Your task to perform on an android device: Find coffee shops on Maps Image 0: 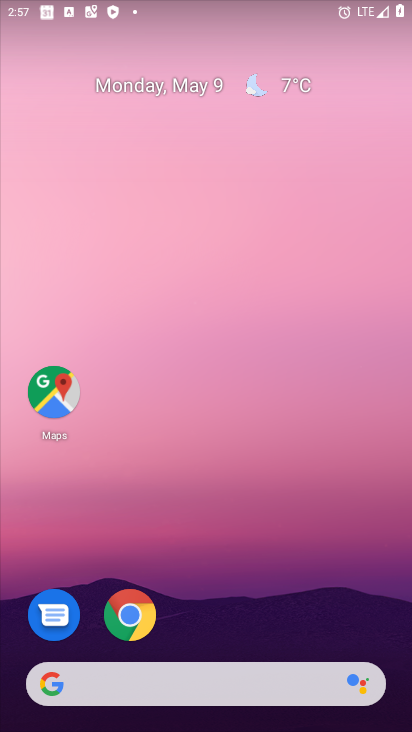
Step 0: click (47, 390)
Your task to perform on an android device: Find coffee shops on Maps Image 1: 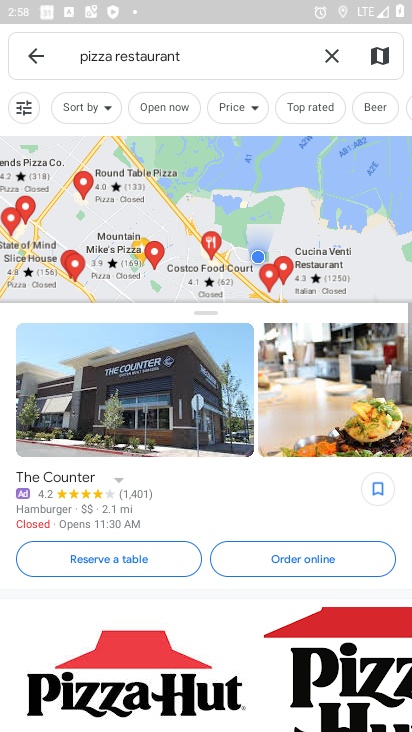
Step 1: click (328, 52)
Your task to perform on an android device: Find coffee shops on Maps Image 2: 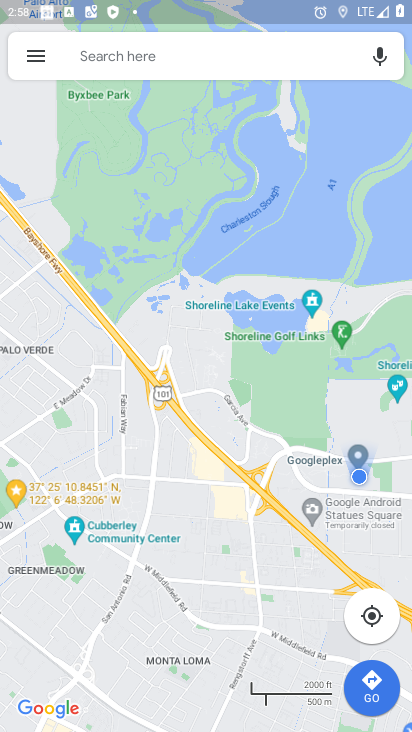
Step 2: click (145, 61)
Your task to perform on an android device: Find coffee shops on Maps Image 3: 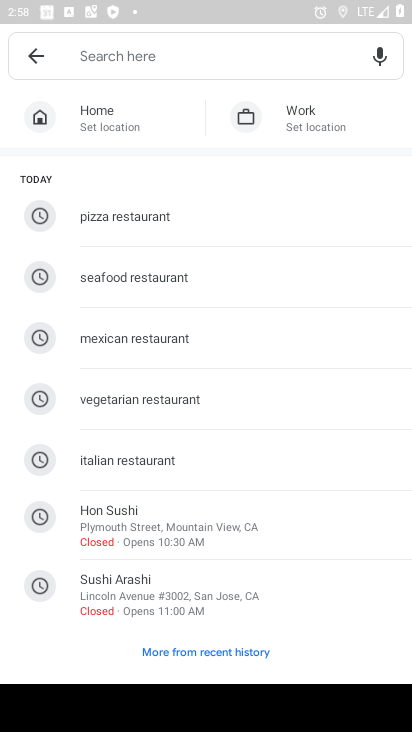
Step 3: type "coffee"
Your task to perform on an android device: Find coffee shops on Maps Image 4: 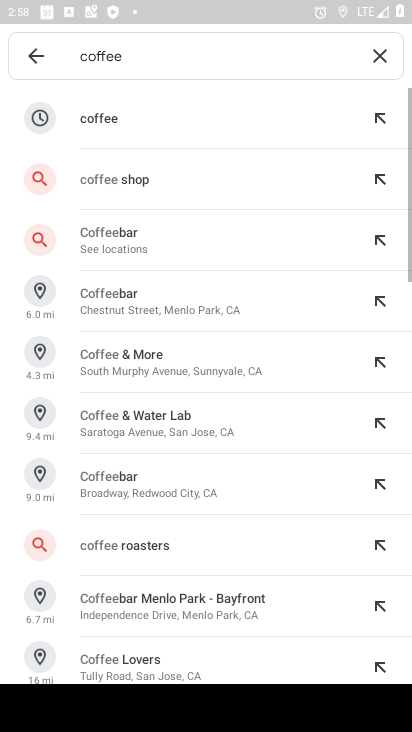
Step 4: click (111, 118)
Your task to perform on an android device: Find coffee shops on Maps Image 5: 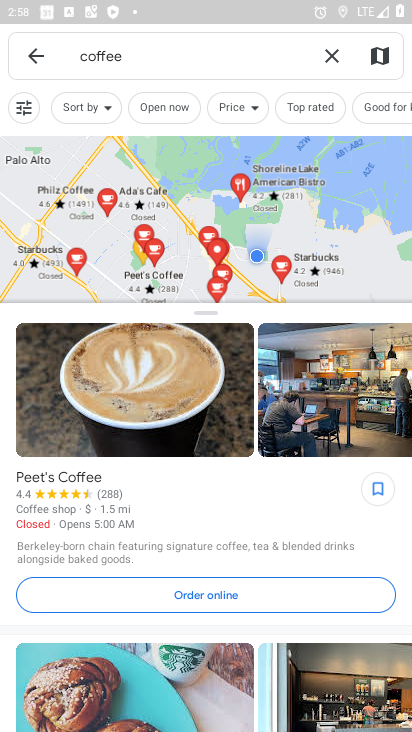
Step 5: task complete